Your task to perform on an android device: Search for a runner rug on Crate & Barrel. Image 0: 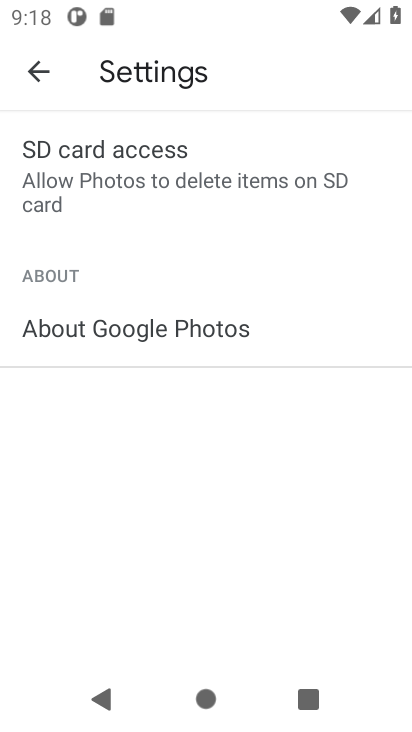
Step 0: press home button
Your task to perform on an android device: Search for a runner rug on Crate & Barrel. Image 1: 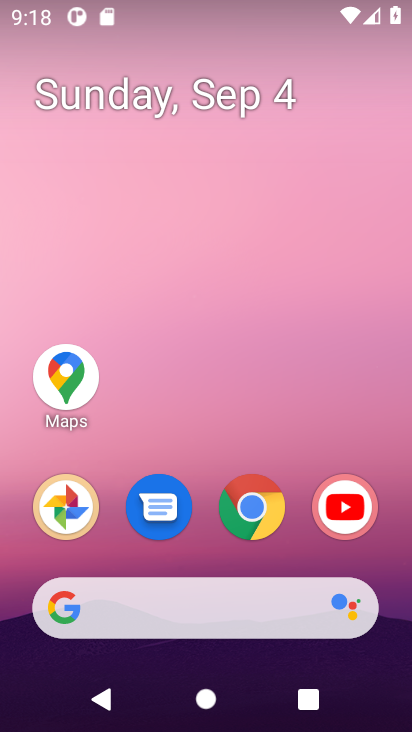
Step 1: click (248, 514)
Your task to perform on an android device: Search for a runner rug on Crate & Barrel. Image 2: 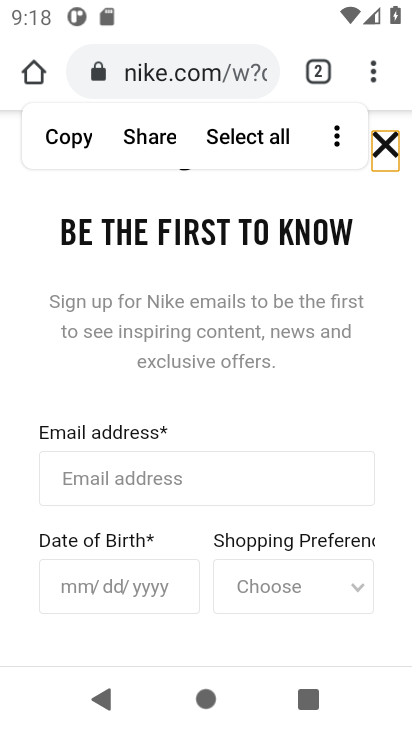
Step 2: click (148, 51)
Your task to perform on an android device: Search for a runner rug on Crate & Barrel. Image 3: 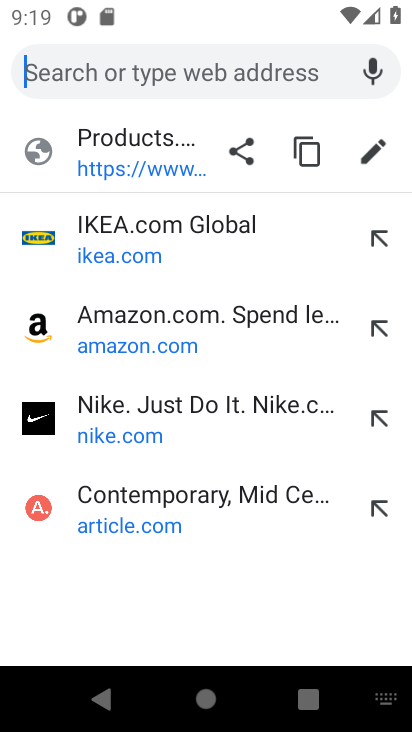
Step 3: type "Crate & Barrel"
Your task to perform on an android device: Search for a runner rug on Crate & Barrel. Image 4: 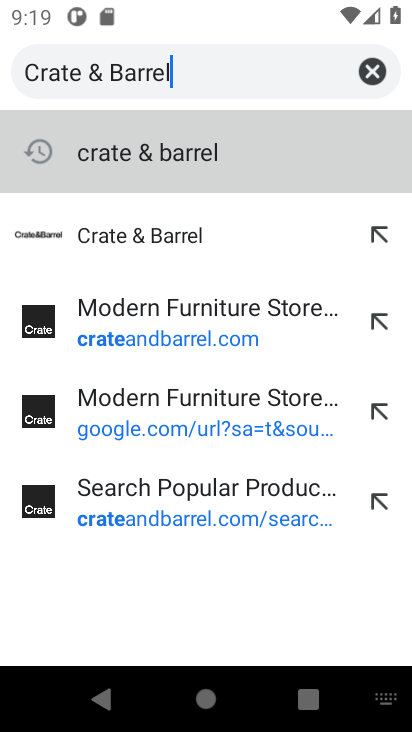
Step 4: click (128, 236)
Your task to perform on an android device: Search for a runner rug on Crate & Barrel. Image 5: 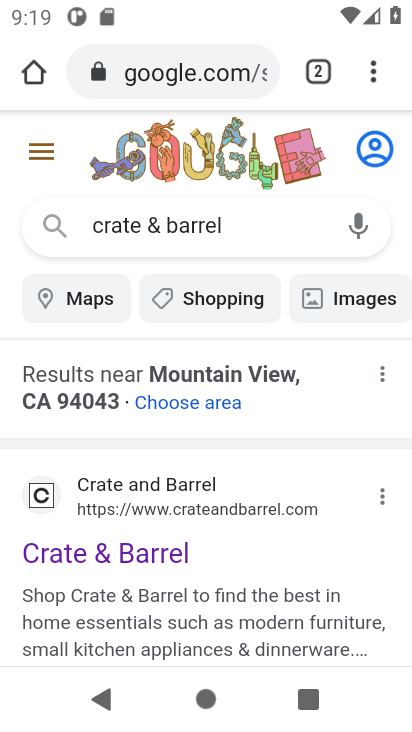
Step 5: click (130, 552)
Your task to perform on an android device: Search for a runner rug on Crate & Barrel. Image 6: 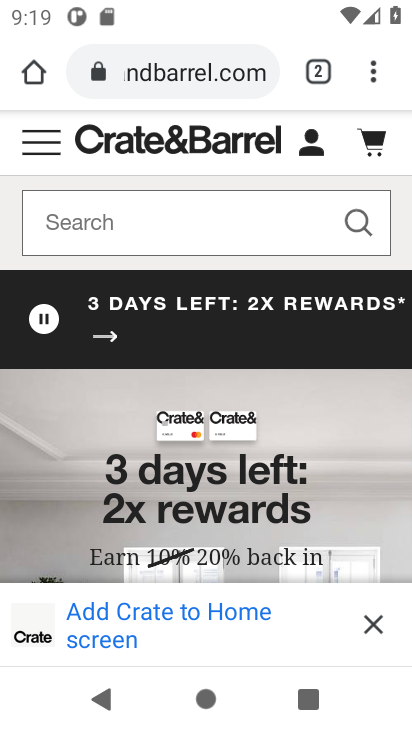
Step 6: click (97, 217)
Your task to perform on an android device: Search for a runner rug on Crate & Barrel. Image 7: 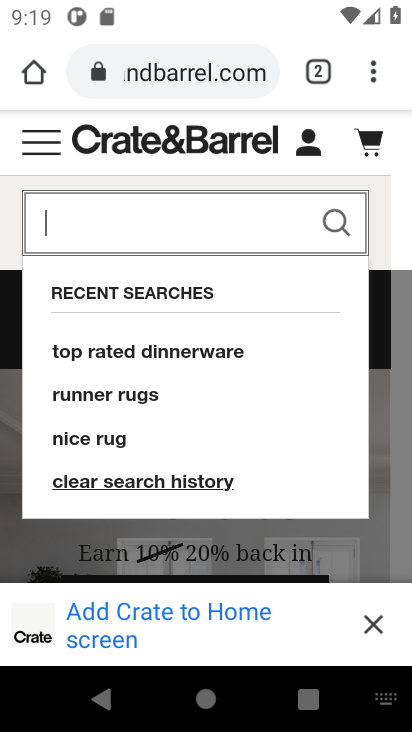
Step 7: type "runner rug"
Your task to perform on an android device: Search for a runner rug on Crate & Barrel. Image 8: 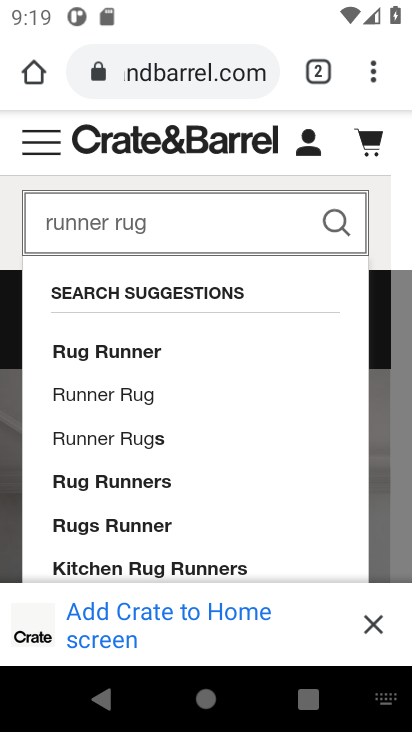
Step 8: click (128, 386)
Your task to perform on an android device: Search for a runner rug on Crate & Barrel. Image 9: 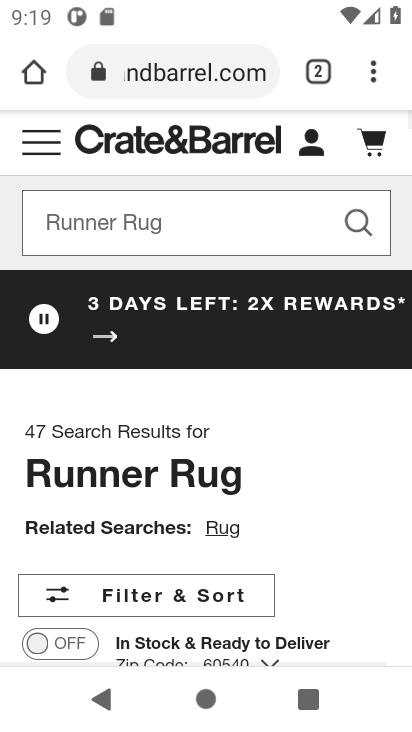
Step 9: task complete